Your task to perform on an android device: change timer sound Image 0: 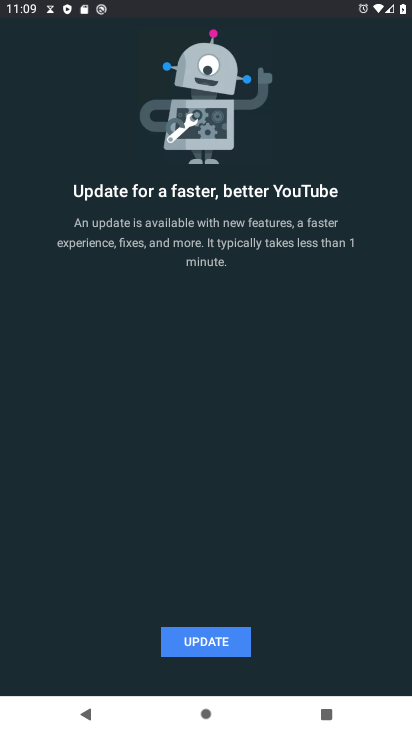
Step 0: press home button
Your task to perform on an android device: change timer sound Image 1: 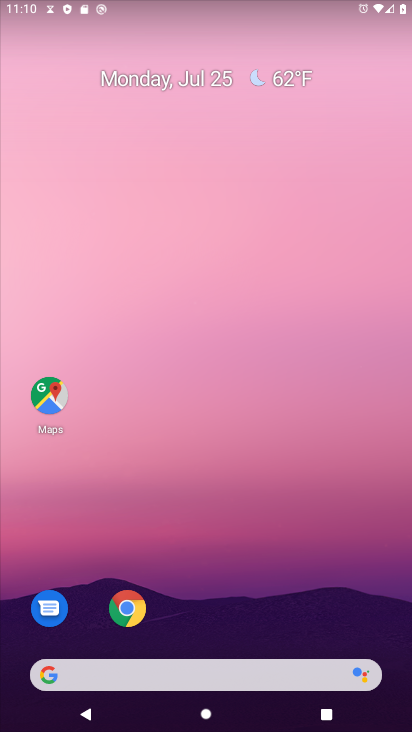
Step 1: drag from (179, 671) to (311, 103)
Your task to perform on an android device: change timer sound Image 2: 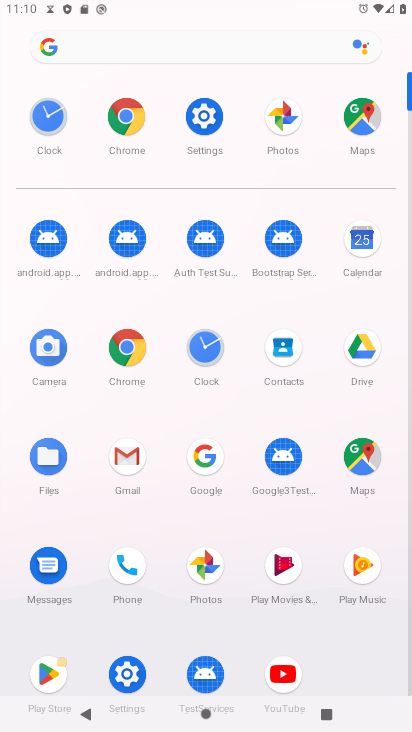
Step 2: click (205, 347)
Your task to perform on an android device: change timer sound Image 3: 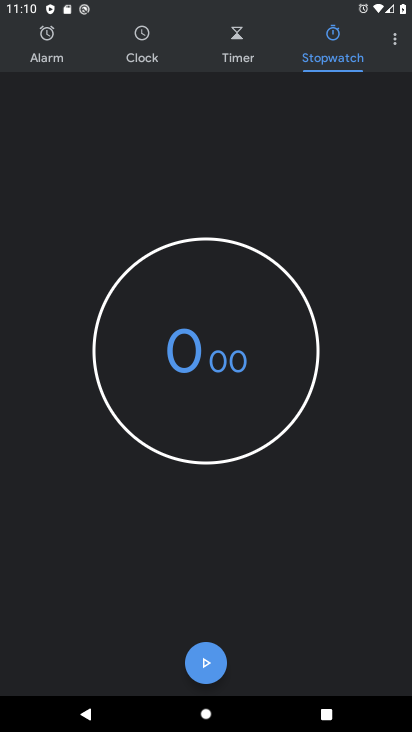
Step 3: click (397, 38)
Your task to perform on an android device: change timer sound Image 4: 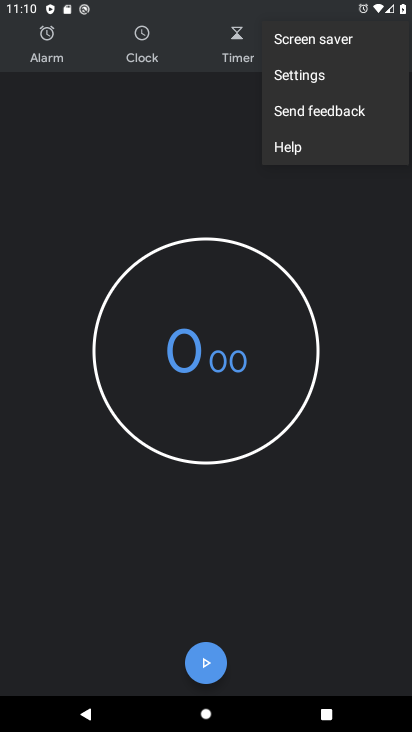
Step 4: click (312, 77)
Your task to perform on an android device: change timer sound Image 5: 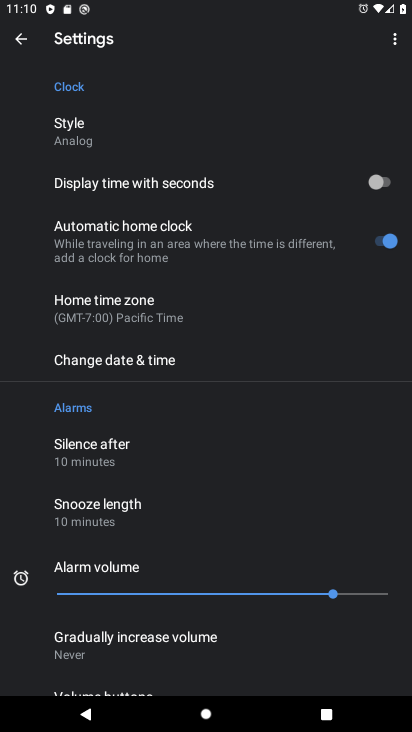
Step 5: drag from (156, 491) to (189, 376)
Your task to perform on an android device: change timer sound Image 6: 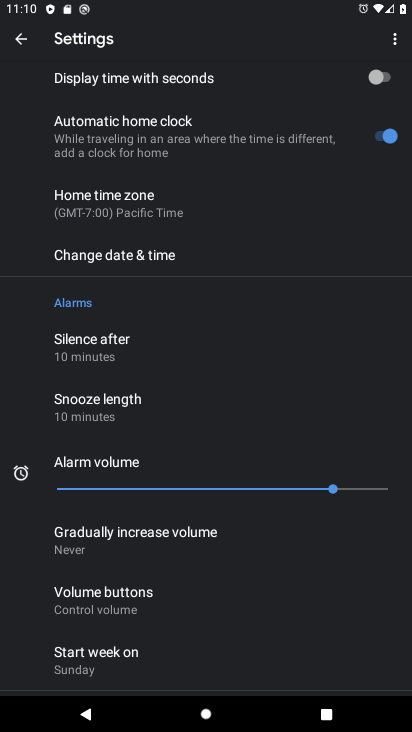
Step 6: drag from (135, 502) to (213, 398)
Your task to perform on an android device: change timer sound Image 7: 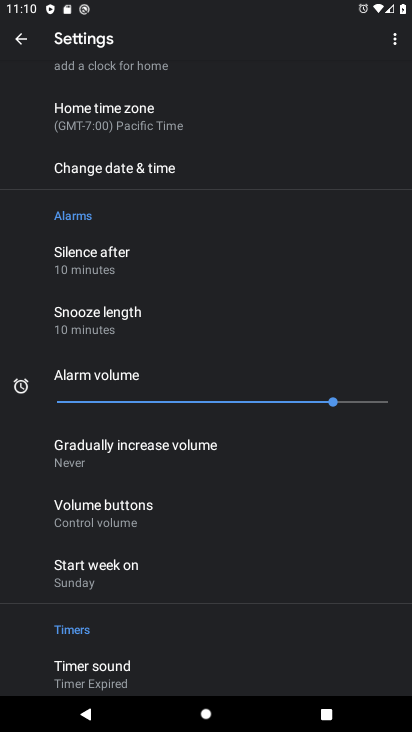
Step 7: drag from (193, 562) to (301, 411)
Your task to perform on an android device: change timer sound Image 8: 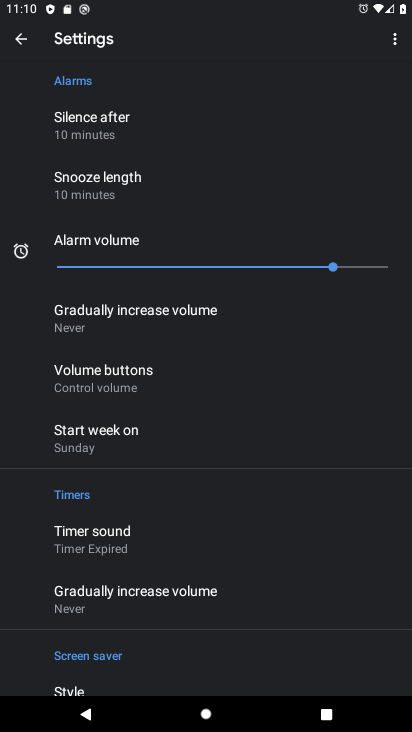
Step 8: click (111, 537)
Your task to perform on an android device: change timer sound Image 9: 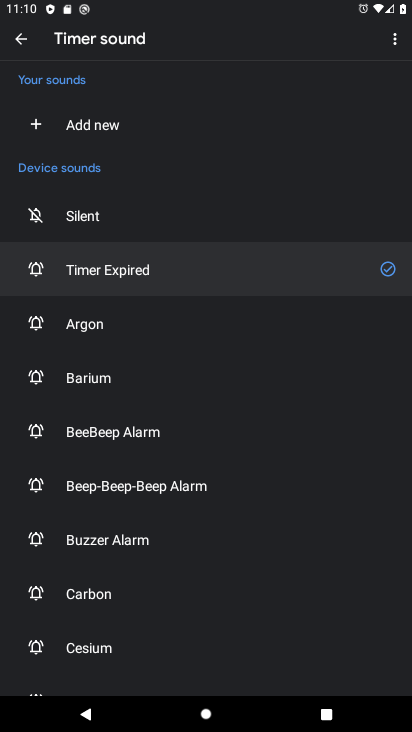
Step 9: drag from (133, 573) to (250, 338)
Your task to perform on an android device: change timer sound Image 10: 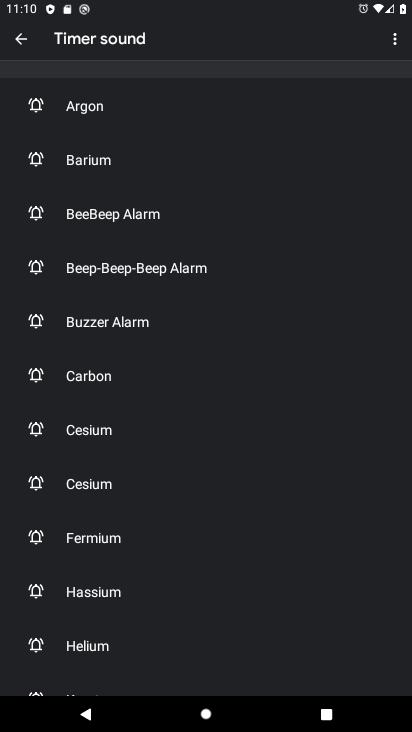
Step 10: drag from (180, 475) to (229, 382)
Your task to perform on an android device: change timer sound Image 11: 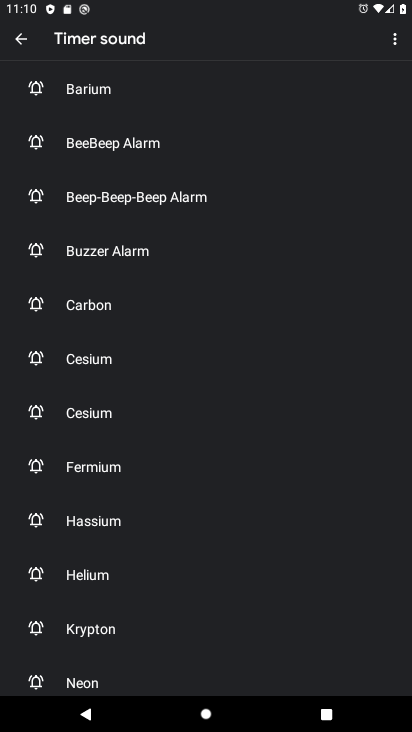
Step 11: click (114, 355)
Your task to perform on an android device: change timer sound Image 12: 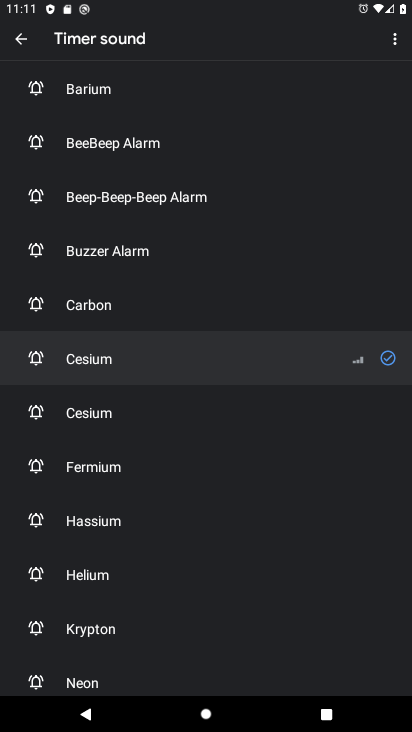
Step 12: task complete